Your task to perform on an android device: Go to Maps Image 0: 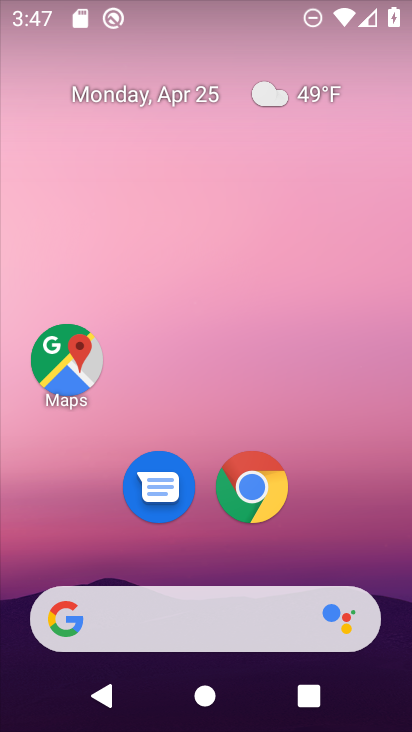
Step 0: click (75, 368)
Your task to perform on an android device: Go to Maps Image 1: 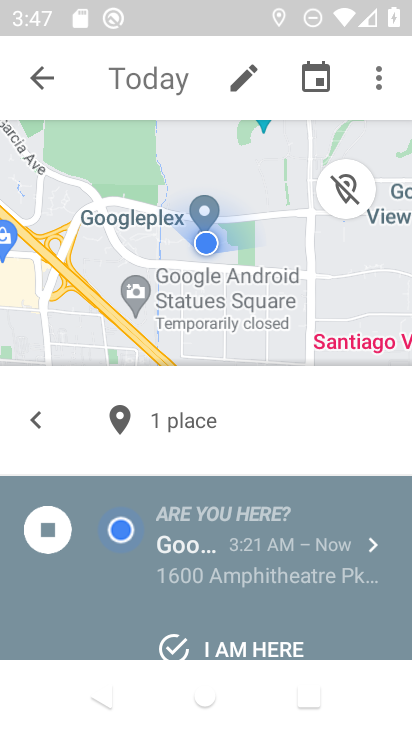
Step 1: click (49, 84)
Your task to perform on an android device: Go to Maps Image 2: 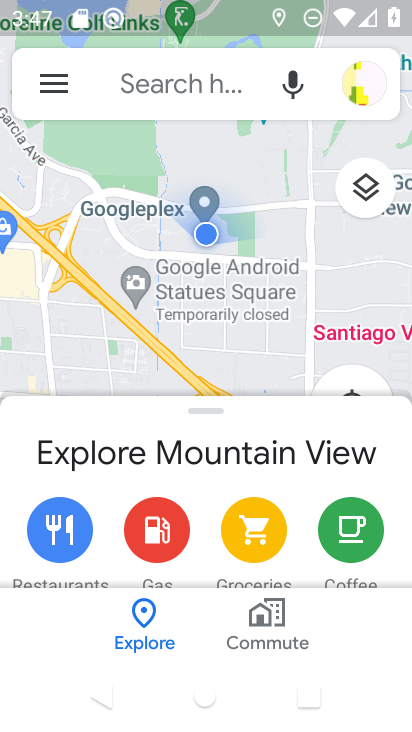
Step 2: task complete